Your task to perform on an android device: Find coffee shops on Maps Image 0: 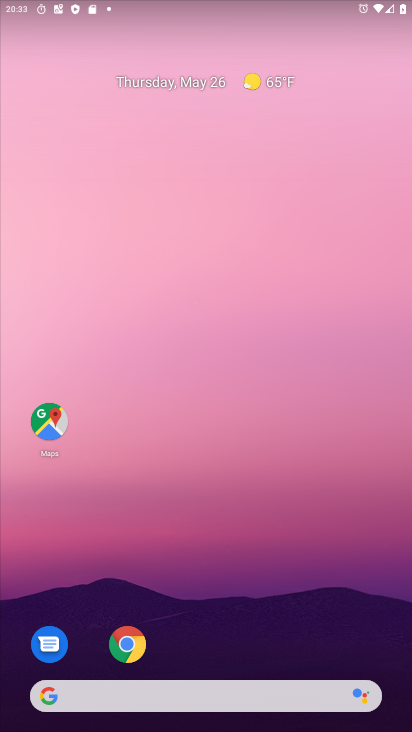
Step 0: click (224, 54)
Your task to perform on an android device: Find coffee shops on Maps Image 1: 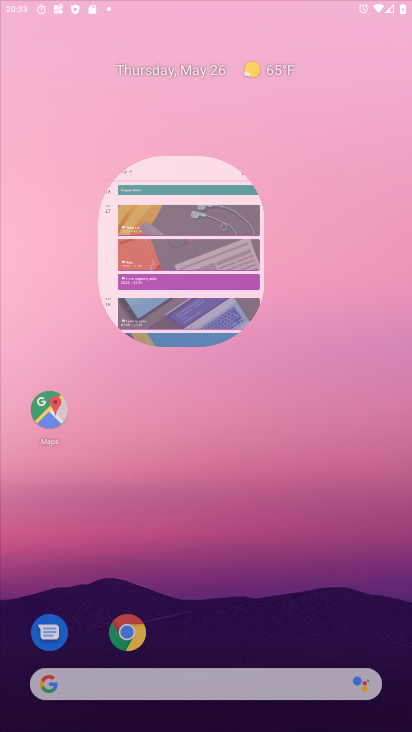
Step 1: drag from (209, 640) to (323, 76)
Your task to perform on an android device: Find coffee shops on Maps Image 2: 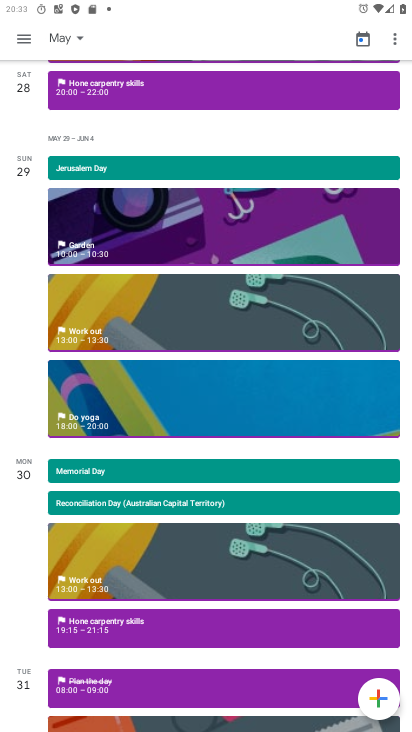
Step 2: drag from (284, 220) to (301, 694)
Your task to perform on an android device: Find coffee shops on Maps Image 3: 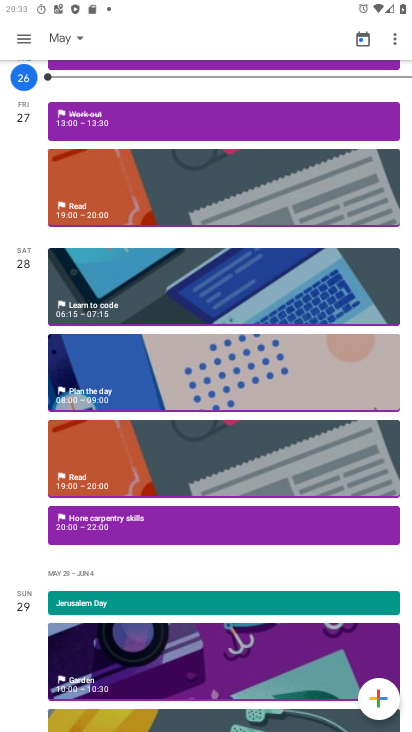
Step 3: press home button
Your task to perform on an android device: Find coffee shops on Maps Image 4: 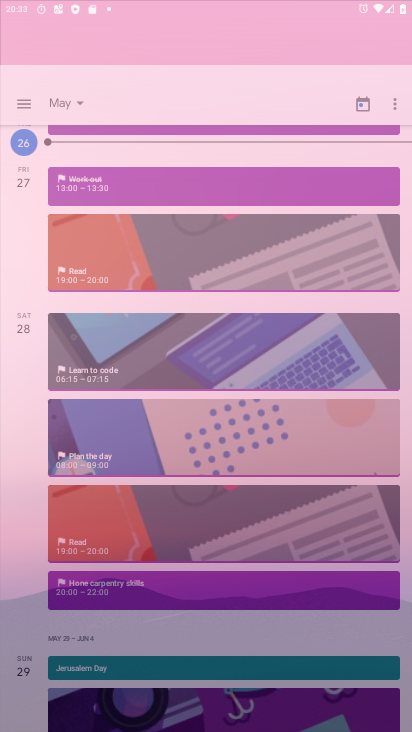
Step 4: drag from (203, 517) to (288, 24)
Your task to perform on an android device: Find coffee shops on Maps Image 5: 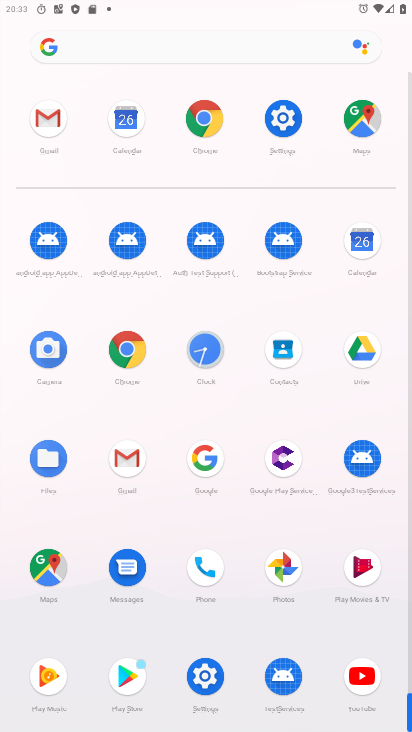
Step 5: click (37, 573)
Your task to perform on an android device: Find coffee shops on Maps Image 6: 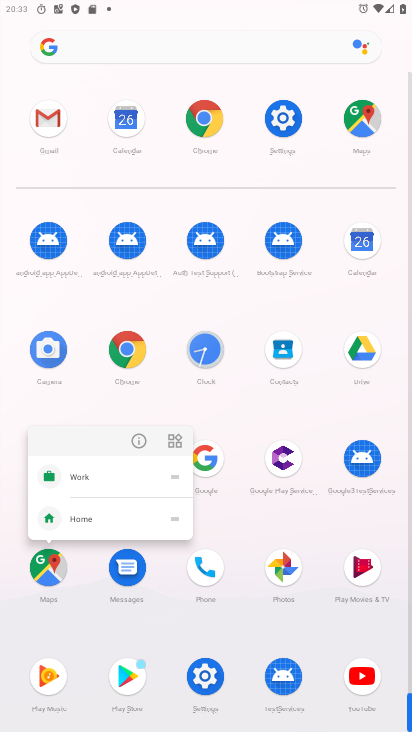
Step 6: click (141, 445)
Your task to perform on an android device: Find coffee shops on Maps Image 7: 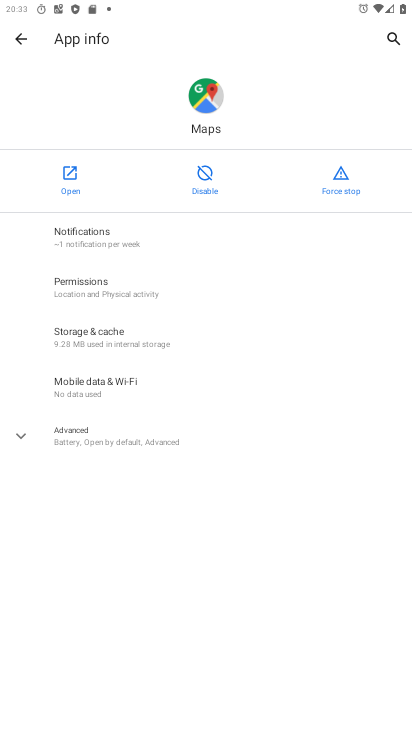
Step 7: click (73, 170)
Your task to perform on an android device: Find coffee shops on Maps Image 8: 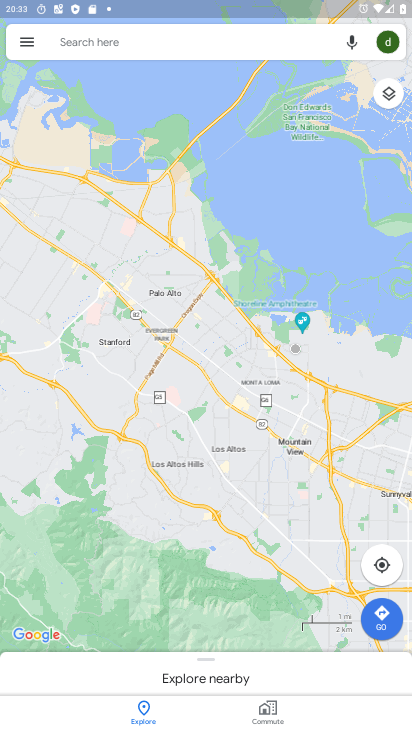
Step 8: click (31, 48)
Your task to perform on an android device: Find coffee shops on Maps Image 9: 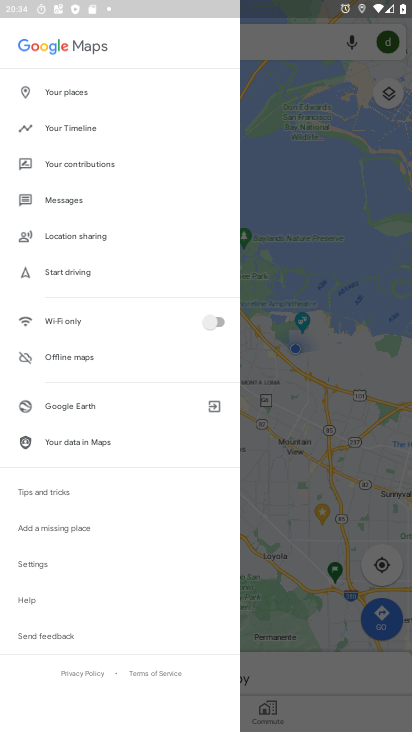
Step 9: drag from (95, 601) to (126, 128)
Your task to perform on an android device: Find coffee shops on Maps Image 10: 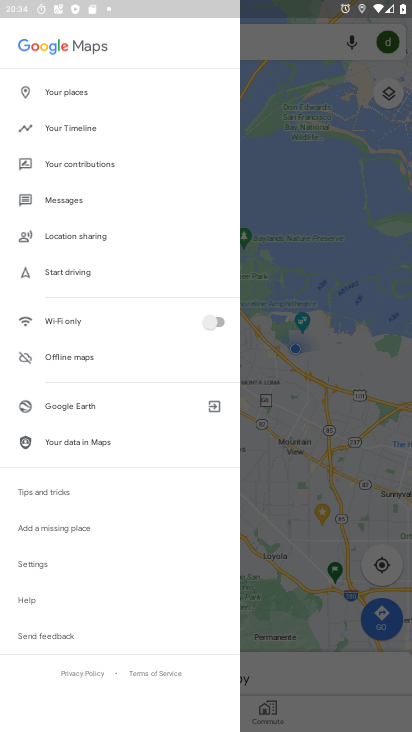
Step 10: click (286, 42)
Your task to perform on an android device: Find coffee shops on Maps Image 11: 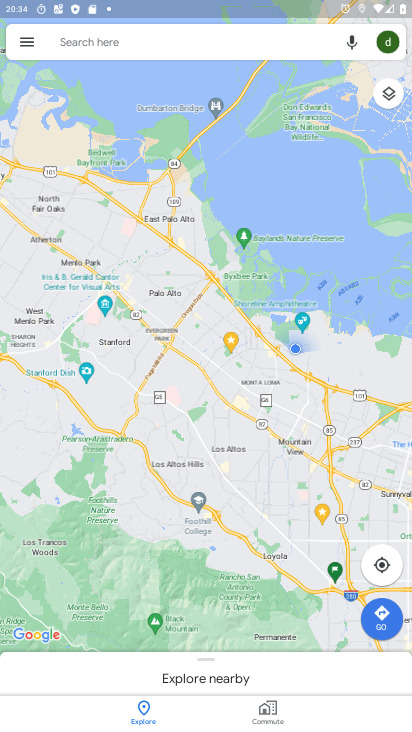
Step 11: click (150, 27)
Your task to perform on an android device: Find coffee shops on Maps Image 12: 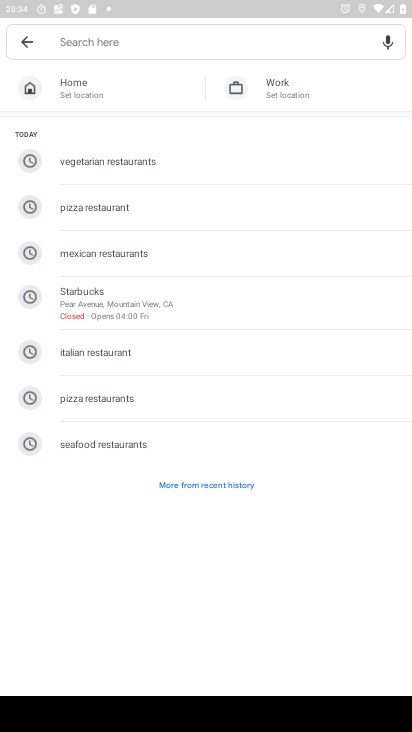
Step 12: type "coffee"
Your task to perform on an android device: Find coffee shops on Maps Image 13: 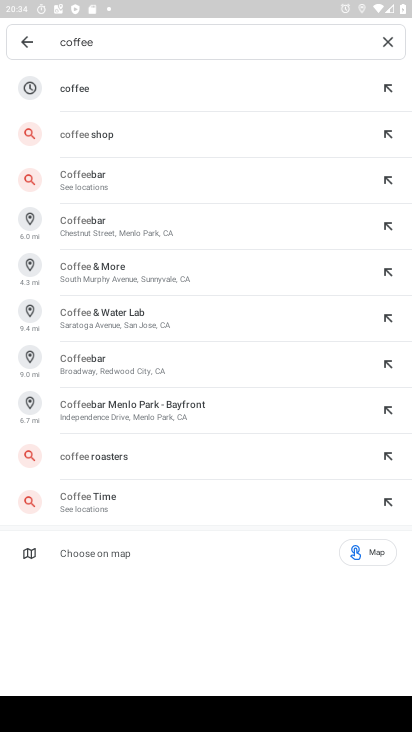
Step 13: click (122, 84)
Your task to perform on an android device: Find coffee shops on Maps Image 14: 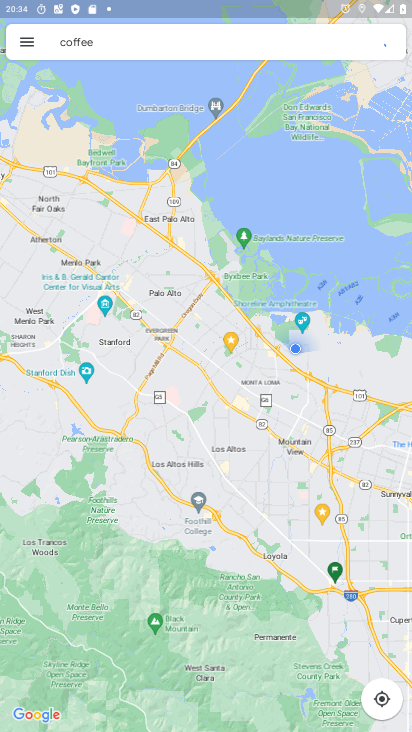
Step 14: task complete